Your task to perform on an android device: Turn off the flashlight Image 0: 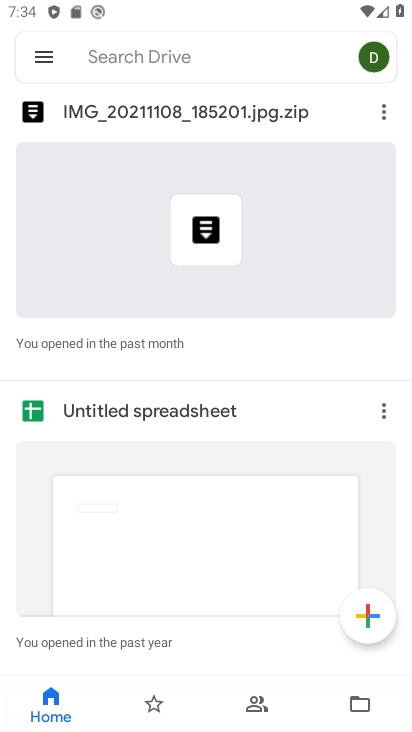
Step 0: task impossible